Your task to perform on an android device: toggle wifi Image 0: 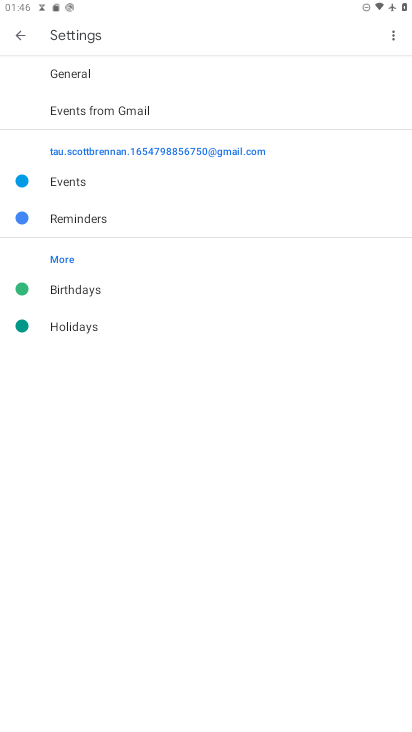
Step 0: press home button
Your task to perform on an android device: toggle wifi Image 1: 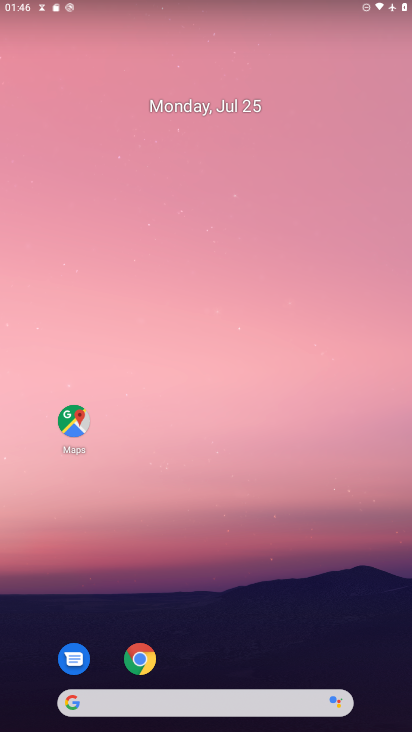
Step 1: drag from (252, 635) to (230, 181)
Your task to perform on an android device: toggle wifi Image 2: 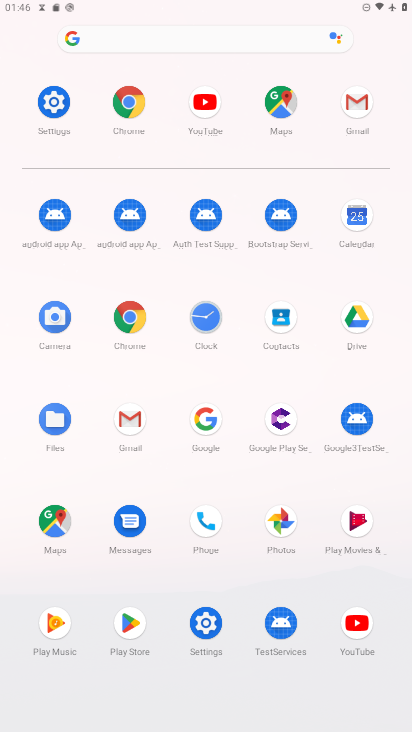
Step 2: click (46, 97)
Your task to perform on an android device: toggle wifi Image 3: 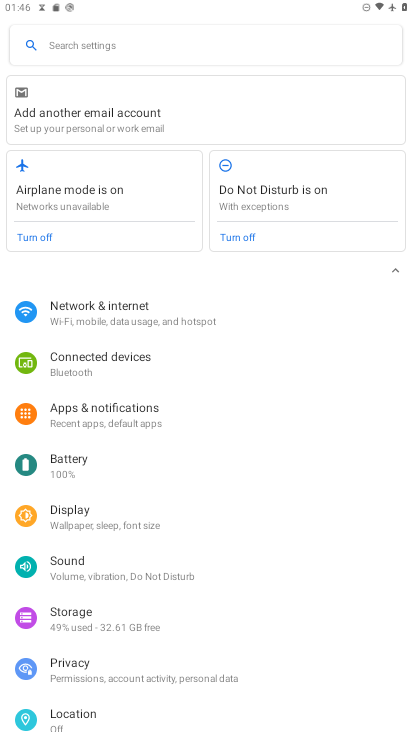
Step 3: click (134, 302)
Your task to perform on an android device: toggle wifi Image 4: 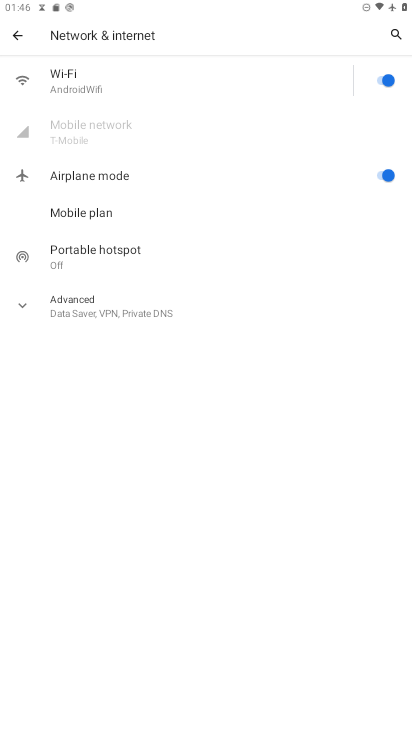
Step 4: click (393, 83)
Your task to perform on an android device: toggle wifi Image 5: 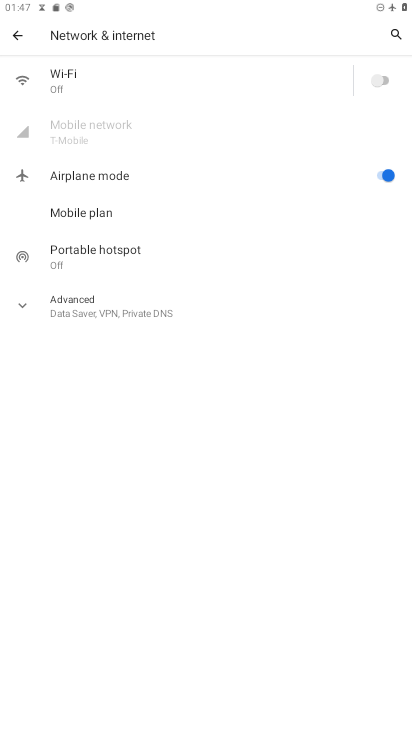
Step 5: task complete